Your task to perform on an android device: Go to internet settings Image 0: 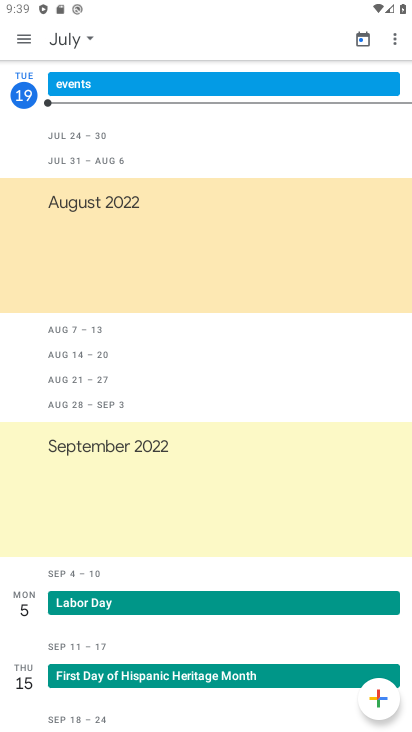
Step 0: press home button
Your task to perform on an android device: Go to internet settings Image 1: 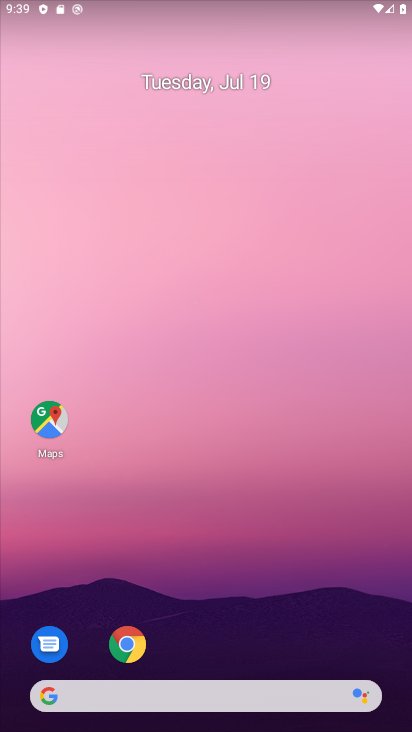
Step 1: drag from (159, 675) to (209, 192)
Your task to perform on an android device: Go to internet settings Image 2: 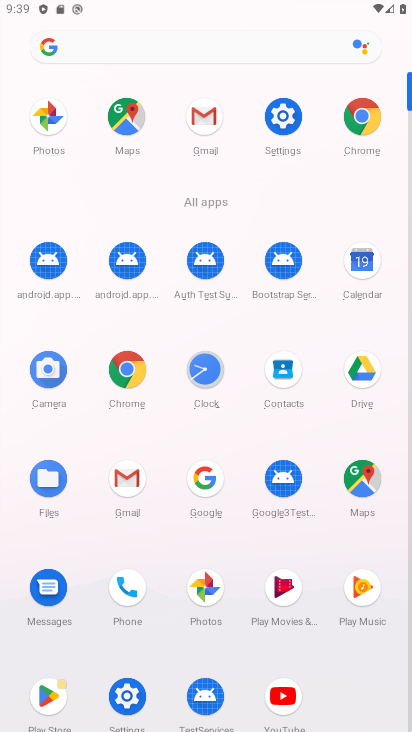
Step 2: click (111, 688)
Your task to perform on an android device: Go to internet settings Image 3: 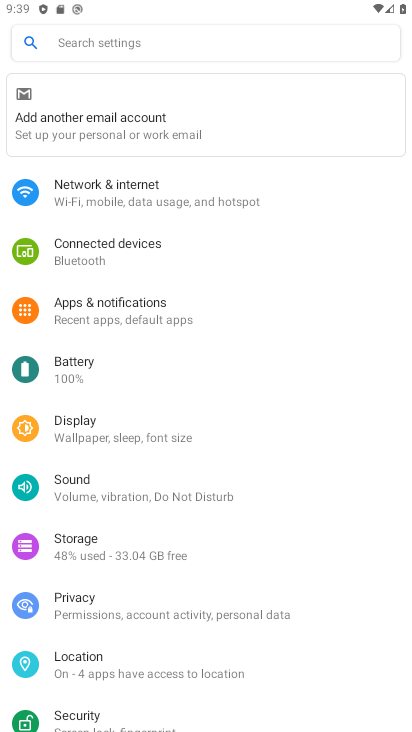
Step 3: click (163, 189)
Your task to perform on an android device: Go to internet settings Image 4: 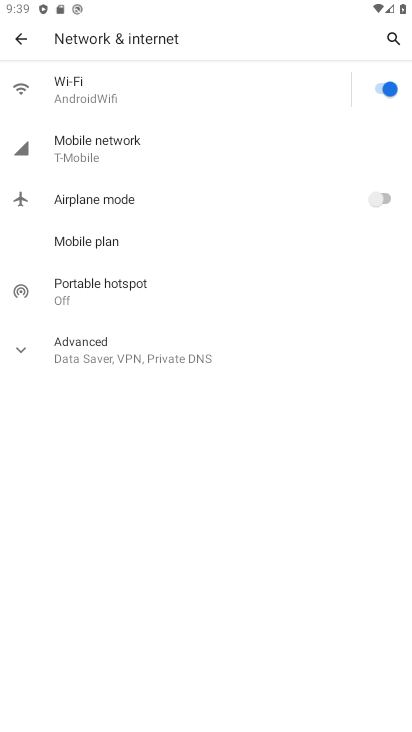
Step 4: click (169, 160)
Your task to perform on an android device: Go to internet settings Image 5: 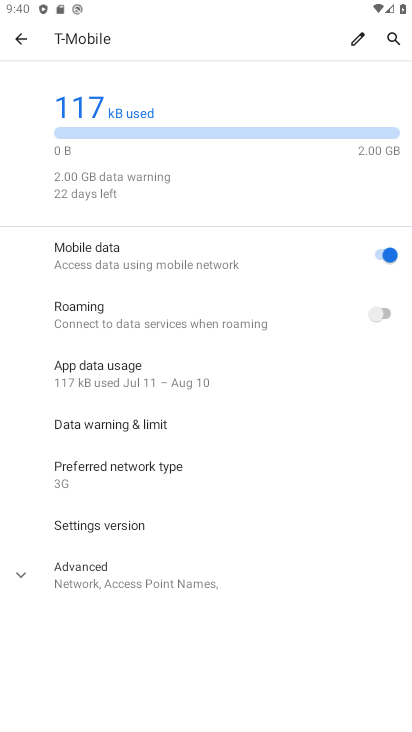
Step 5: task complete